Your task to perform on an android device: change the clock style Image 0: 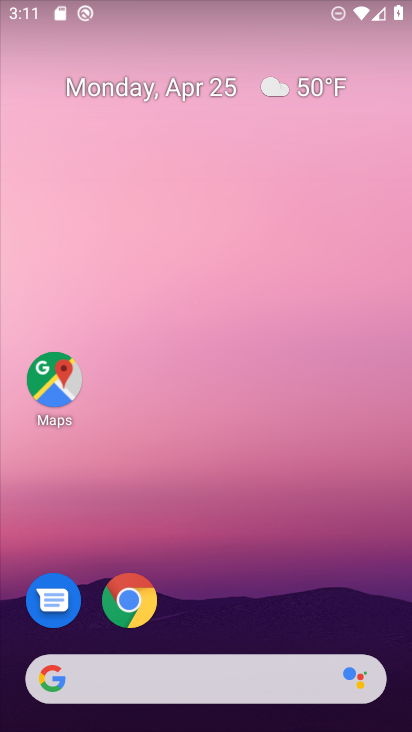
Step 0: drag from (219, 646) to (305, 8)
Your task to perform on an android device: change the clock style Image 1: 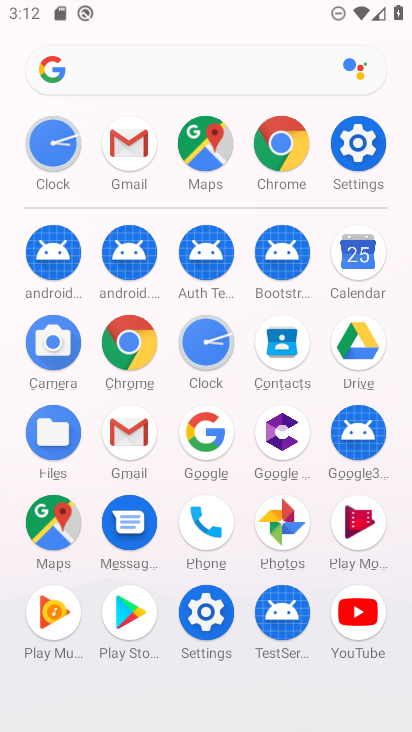
Step 1: click (210, 340)
Your task to perform on an android device: change the clock style Image 2: 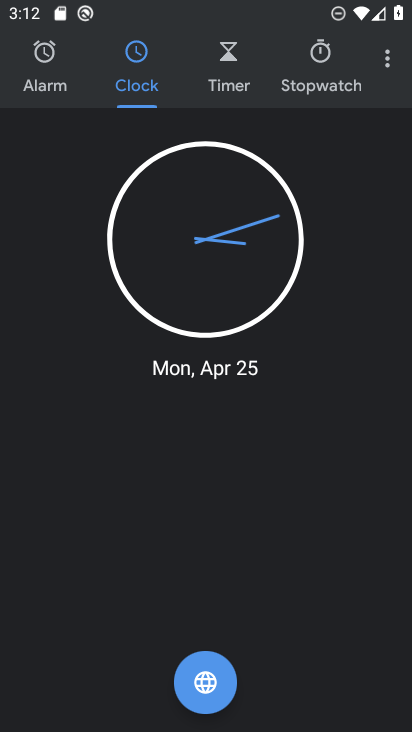
Step 2: click (384, 60)
Your task to perform on an android device: change the clock style Image 3: 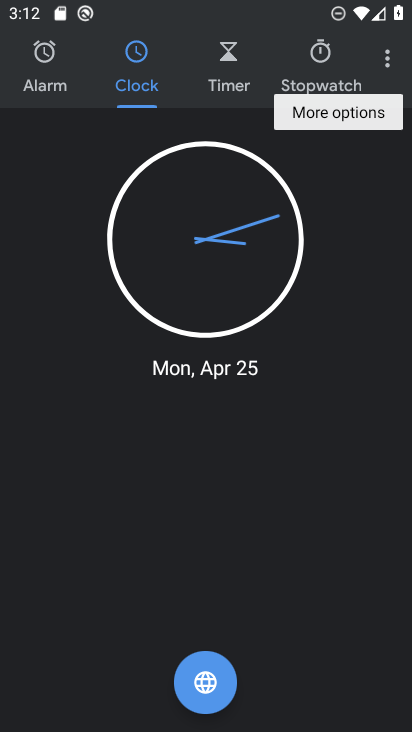
Step 3: click (360, 114)
Your task to perform on an android device: change the clock style Image 4: 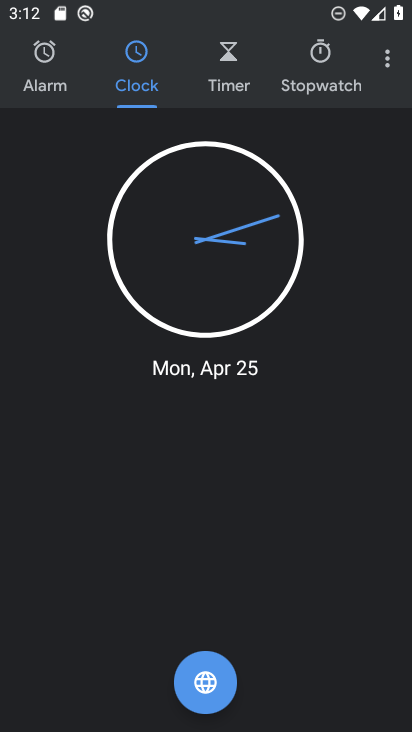
Step 4: click (389, 65)
Your task to perform on an android device: change the clock style Image 5: 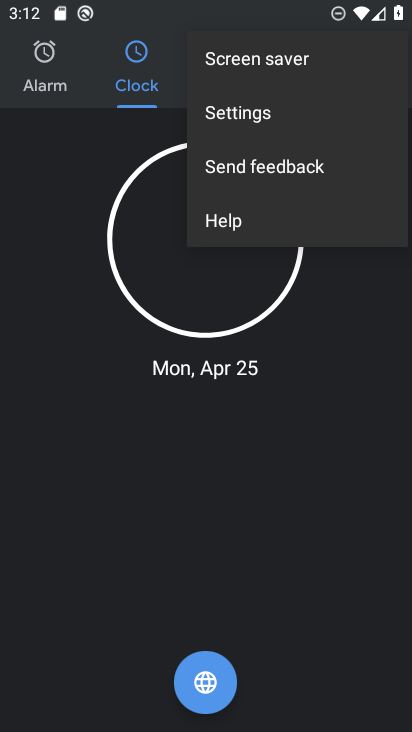
Step 5: click (280, 103)
Your task to perform on an android device: change the clock style Image 6: 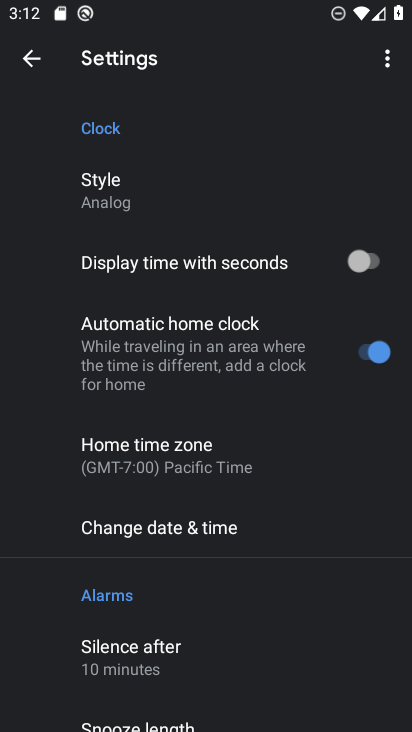
Step 6: click (201, 196)
Your task to perform on an android device: change the clock style Image 7: 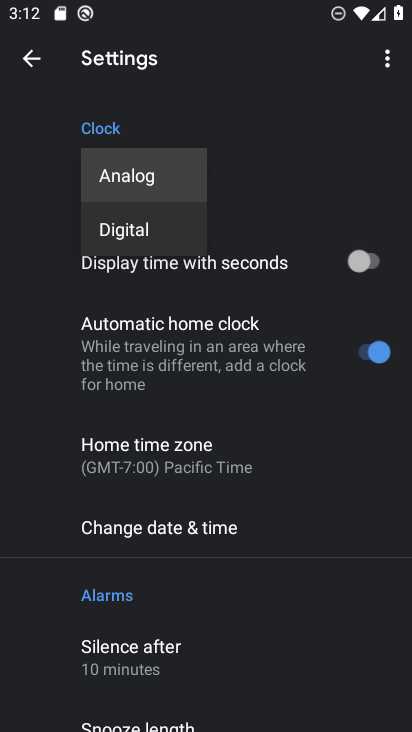
Step 7: click (178, 224)
Your task to perform on an android device: change the clock style Image 8: 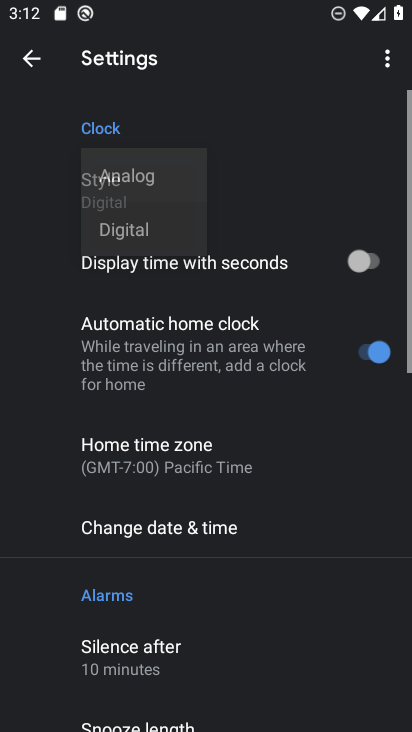
Step 8: task complete